Your task to perform on an android device: Open Wikipedia Image 0: 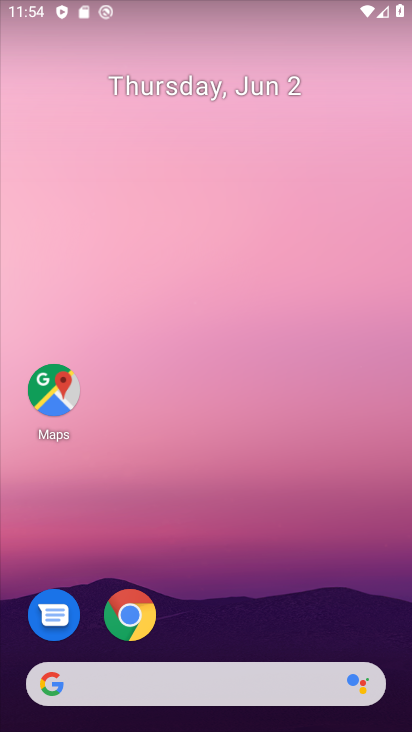
Step 0: drag from (254, 720) to (287, 12)
Your task to perform on an android device: Open Wikipedia Image 1: 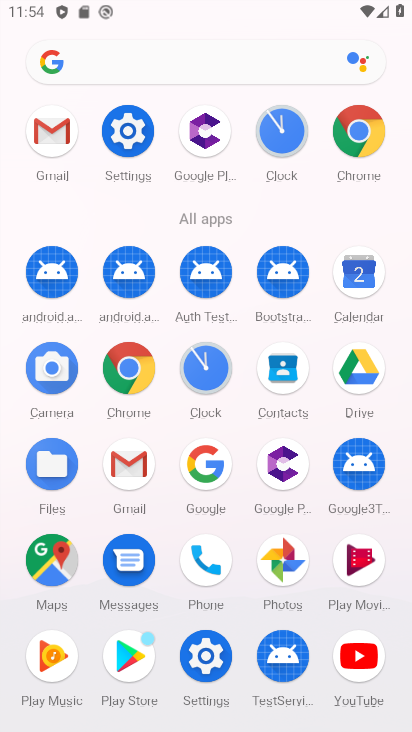
Step 1: click (135, 361)
Your task to perform on an android device: Open Wikipedia Image 2: 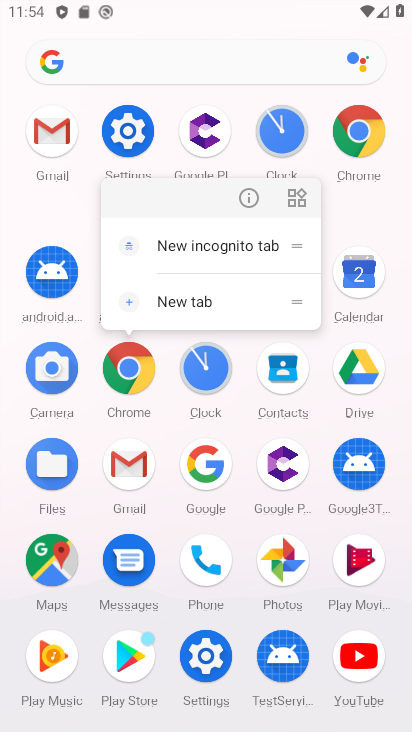
Step 2: click (135, 361)
Your task to perform on an android device: Open Wikipedia Image 3: 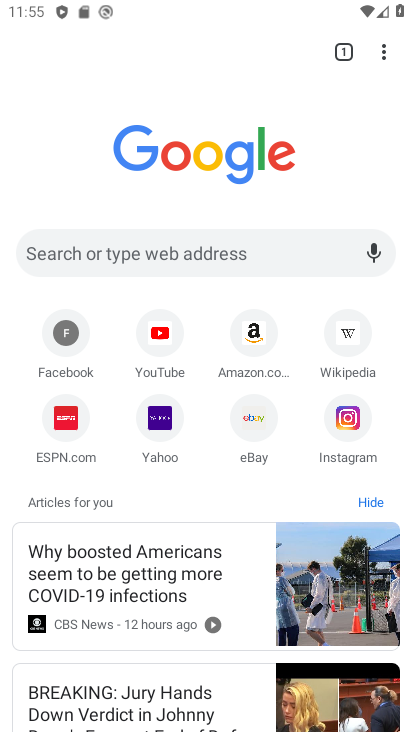
Step 3: click (351, 351)
Your task to perform on an android device: Open Wikipedia Image 4: 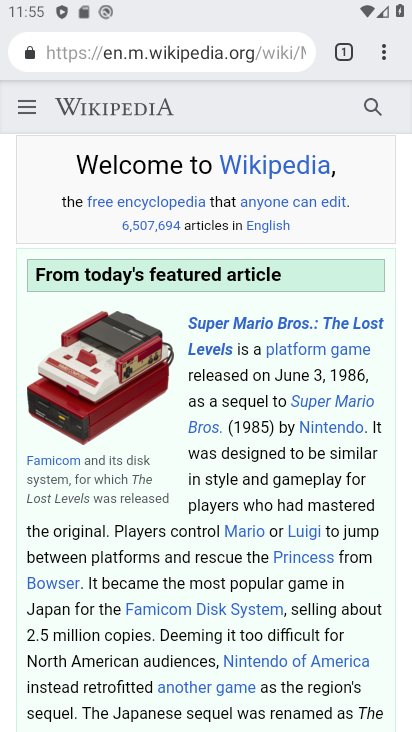
Step 4: task complete